Your task to perform on an android device: Clear all items from cart on bestbuy.com. Search for "sony triple a" on bestbuy.com, select the first entry, add it to the cart, then select checkout. Image 0: 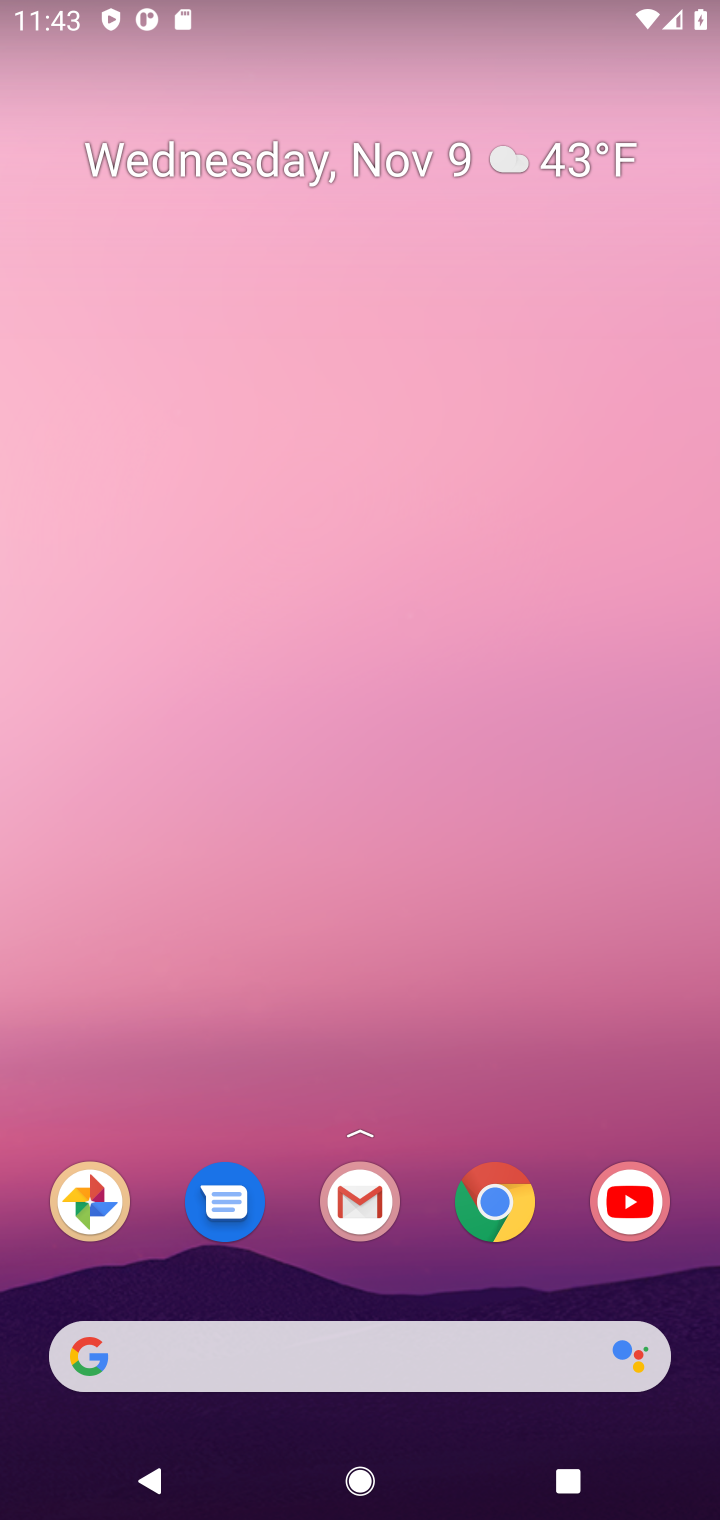
Step 0: click (501, 1201)
Your task to perform on an android device: Clear all items from cart on bestbuy.com. Search for "sony triple a" on bestbuy.com, select the first entry, add it to the cart, then select checkout. Image 1: 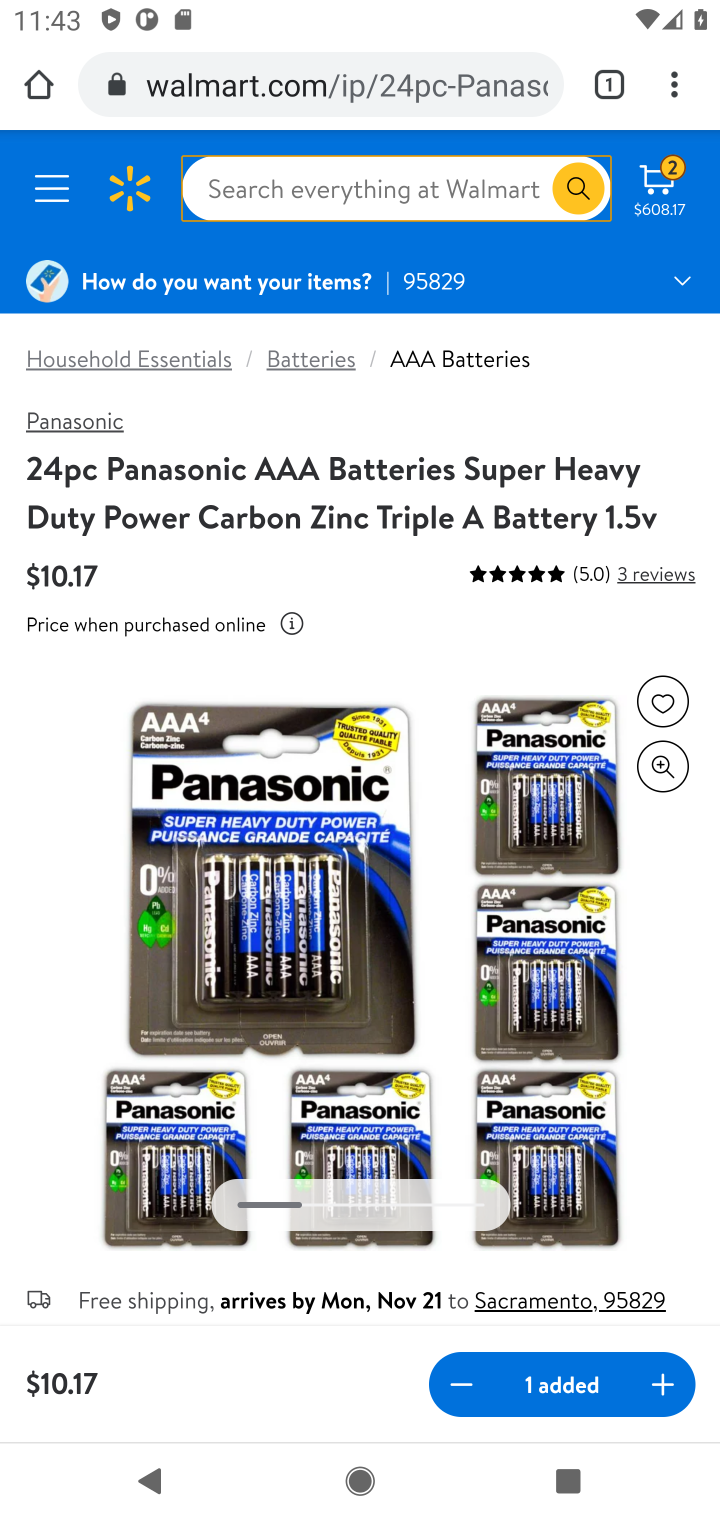
Step 1: click (397, 88)
Your task to perform on an android device: Clear all items from cart on bestbuy.com. Search for "sony triple a" on bestbuy.com, select the first entry, add it to the cart, then select checkout. Image 2: 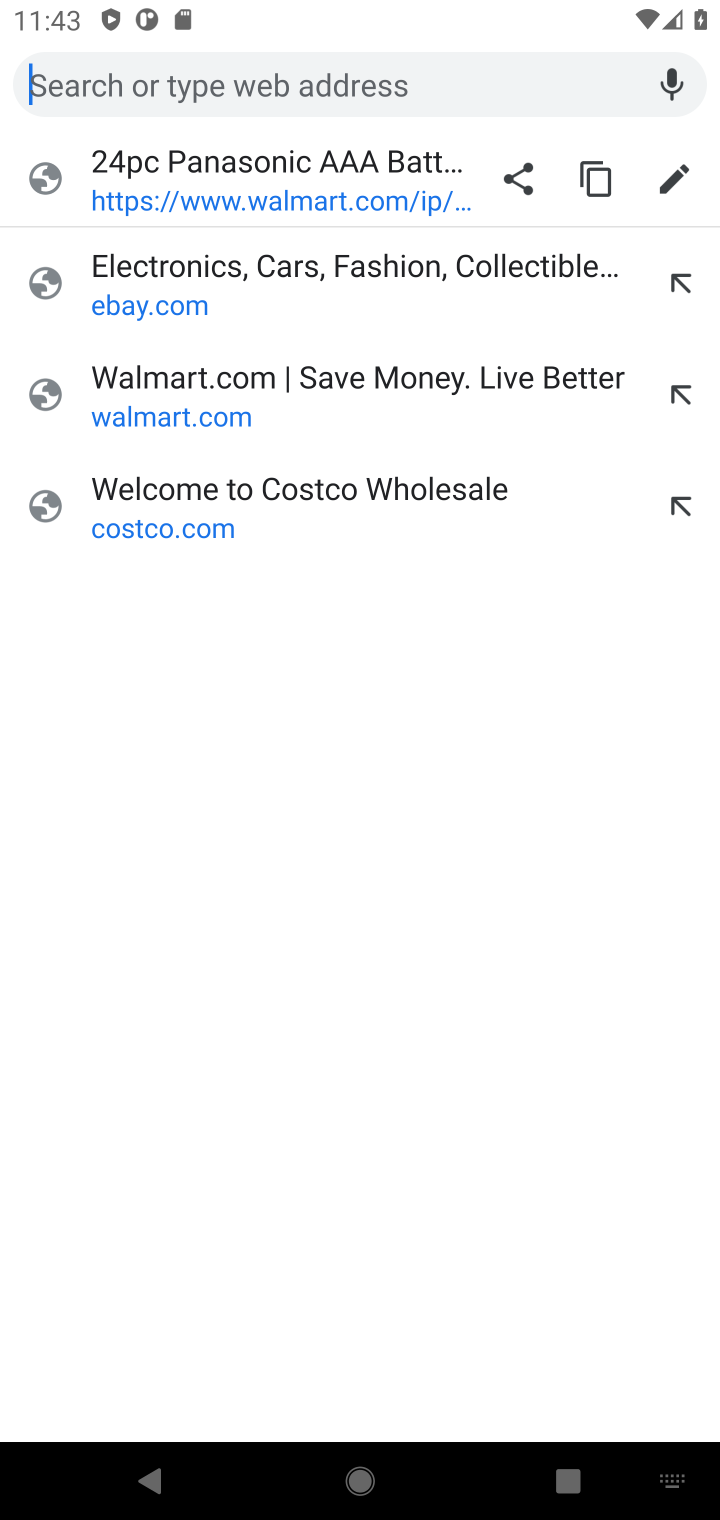
Step 2: press enter
Your task to perform on an android device: Clear all items from cart on bestbuy.com. Search for "sony triple a" on bestbuy.com, select the first entry, add it to the cart, then select checkout. Image 3: 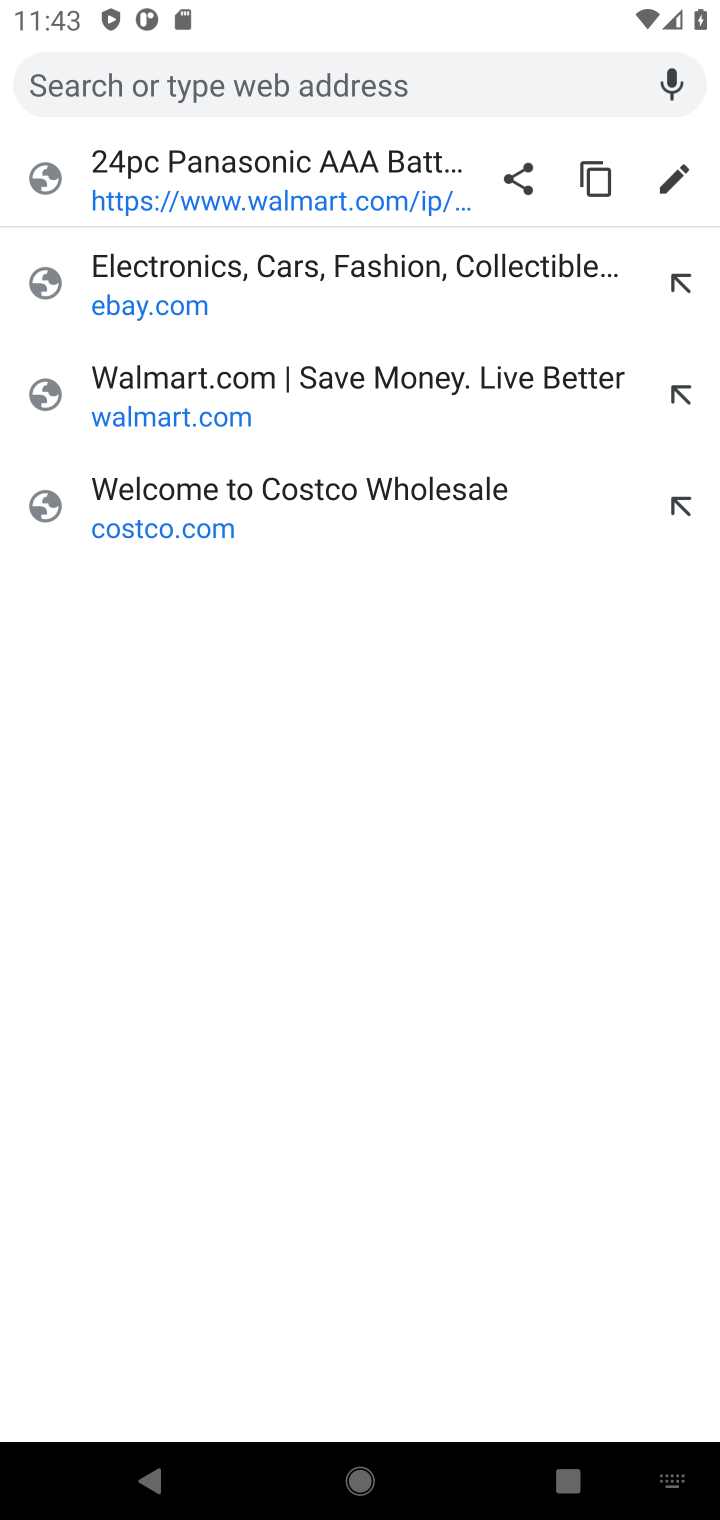
Step 3: type "bestbuy.com"
Your task to perform on an android device: Clear all items from cart on bestbuy.com. Search for "sony triple a" on bestbuy.com, select the first entry, add it to the cart, then select checkout. Image 4: 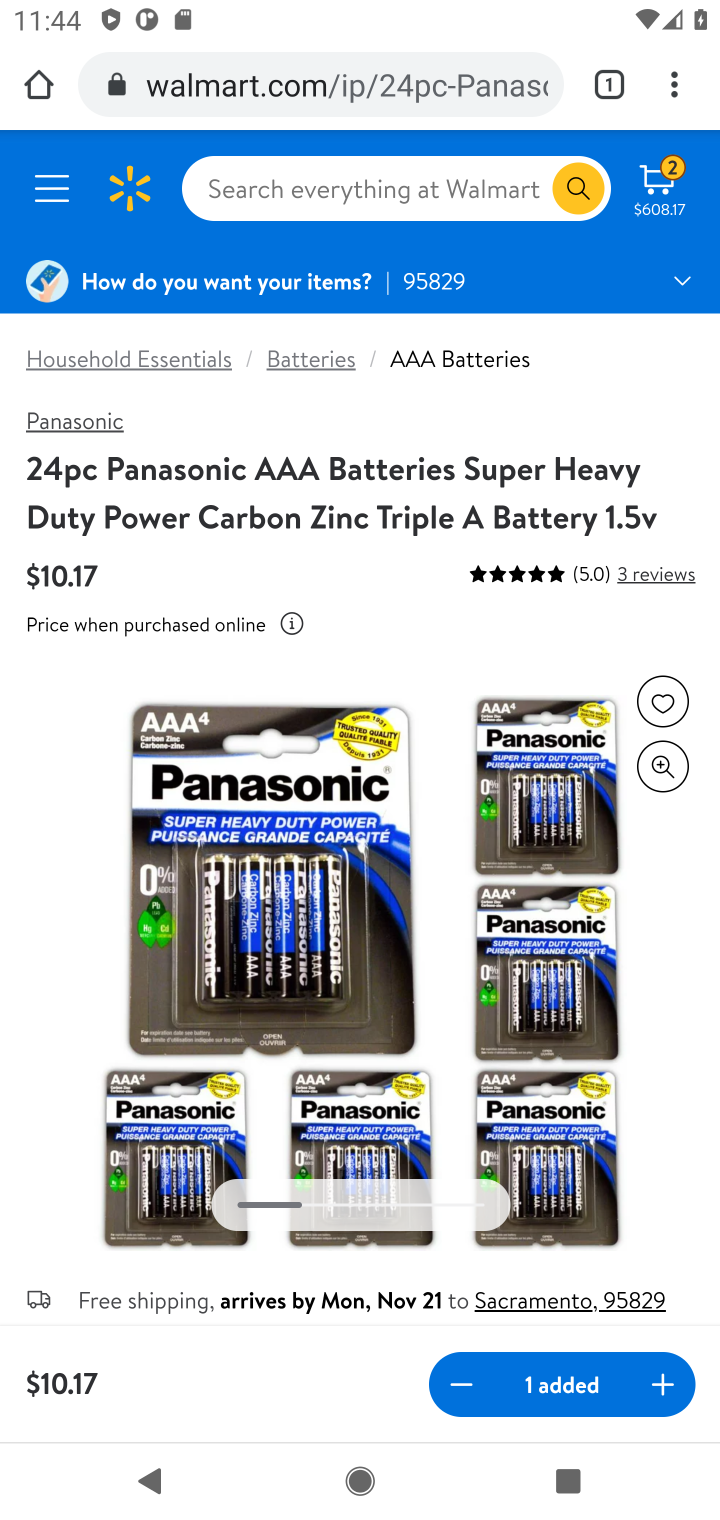
Step 4: click (663, 186)
Your task to perform on an android device: Clear all items from cart on bestbuy.com. Search for "sony triple a" on bestbuy.com, select the first entry, add it to the cart, then select checkout. Image 5: 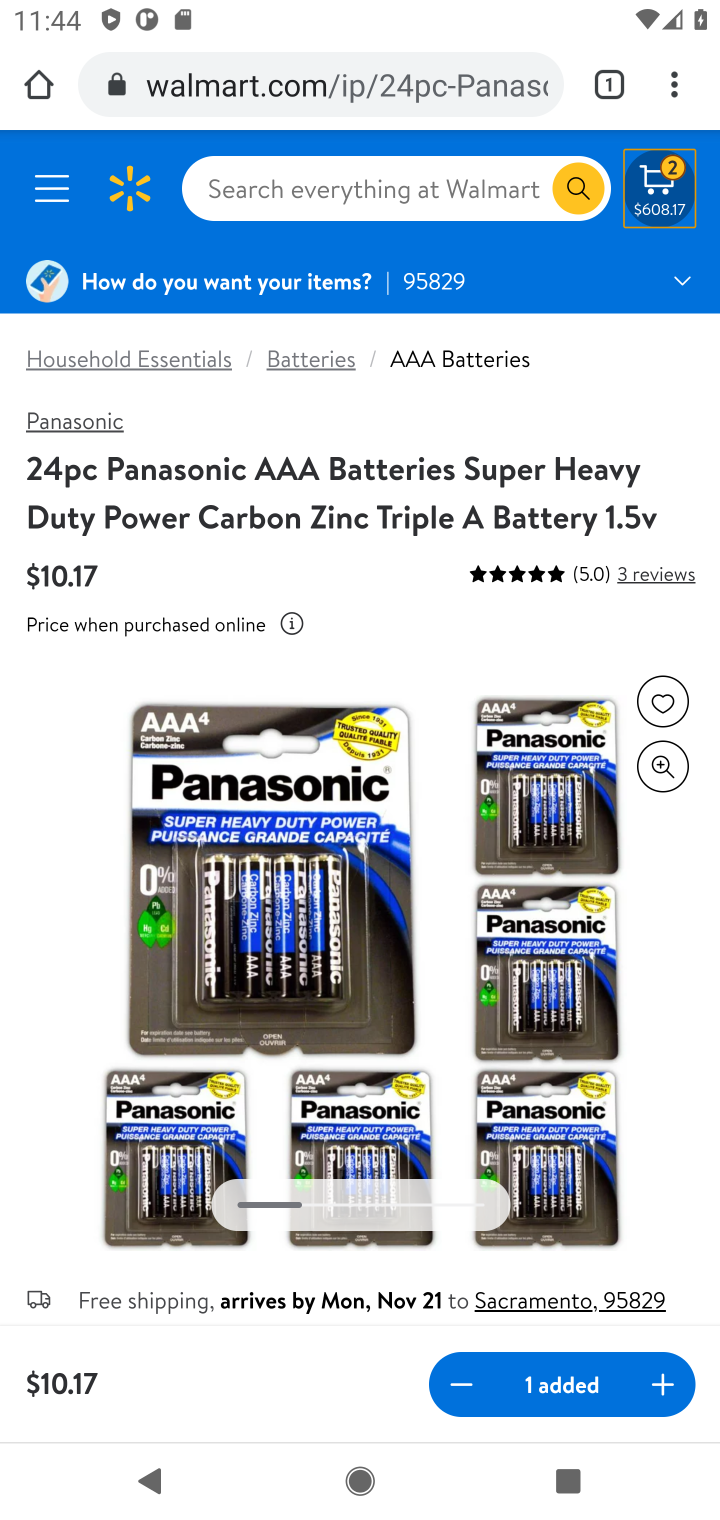
Step 5: click (658, 186)
Your task to perform on an android device: Clear all items from cart on bestbuy.com. Search for "sony triple a" on bestbuy.com, select the first entry, add it to the cart, then select checkout. Image 6: 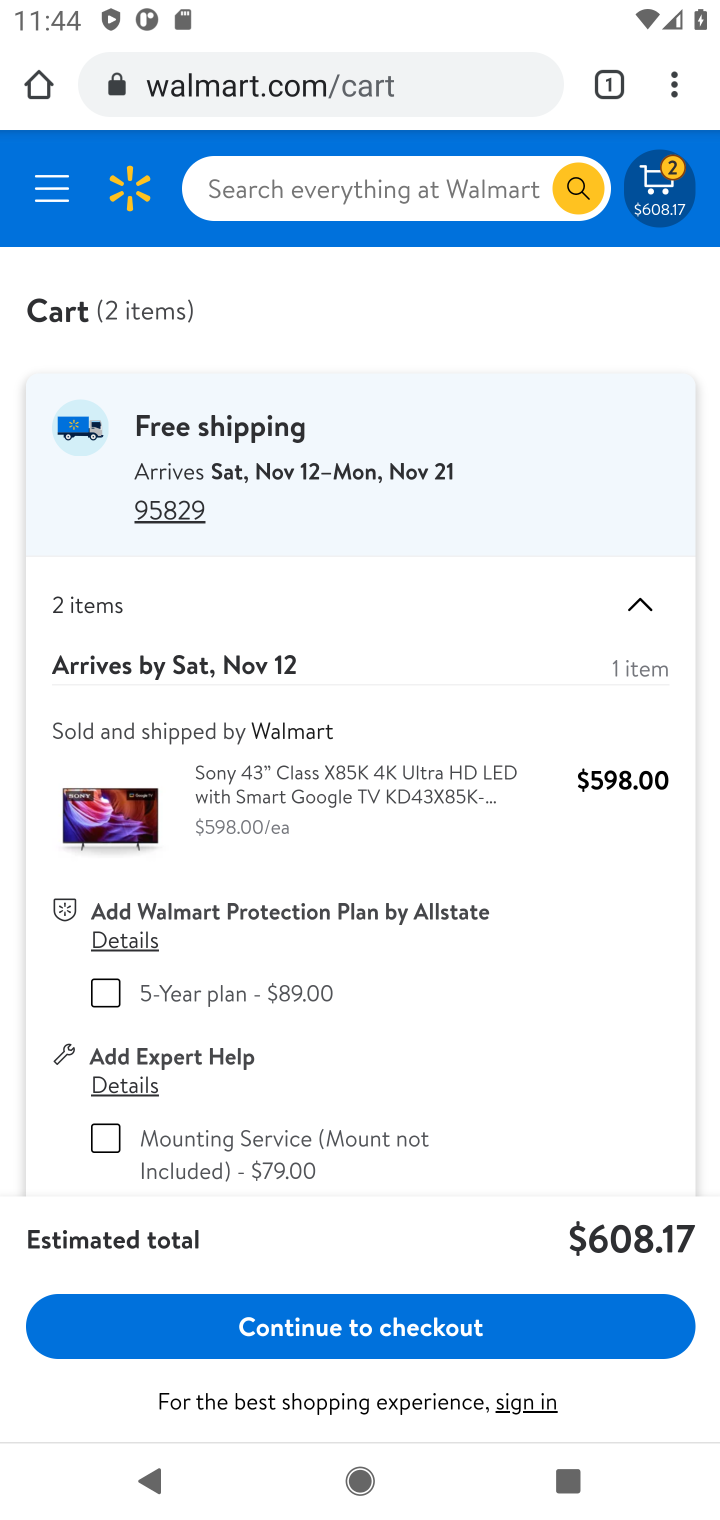
Step 6: drag from (428, 1055) to (536, 437)
Your task to perform on an android device: Clear all items from cart on bestbuy.com. Search for "sony triple a" on bestbuy.com, select the first entry, add it to the cart, then select checkout. Image 7: 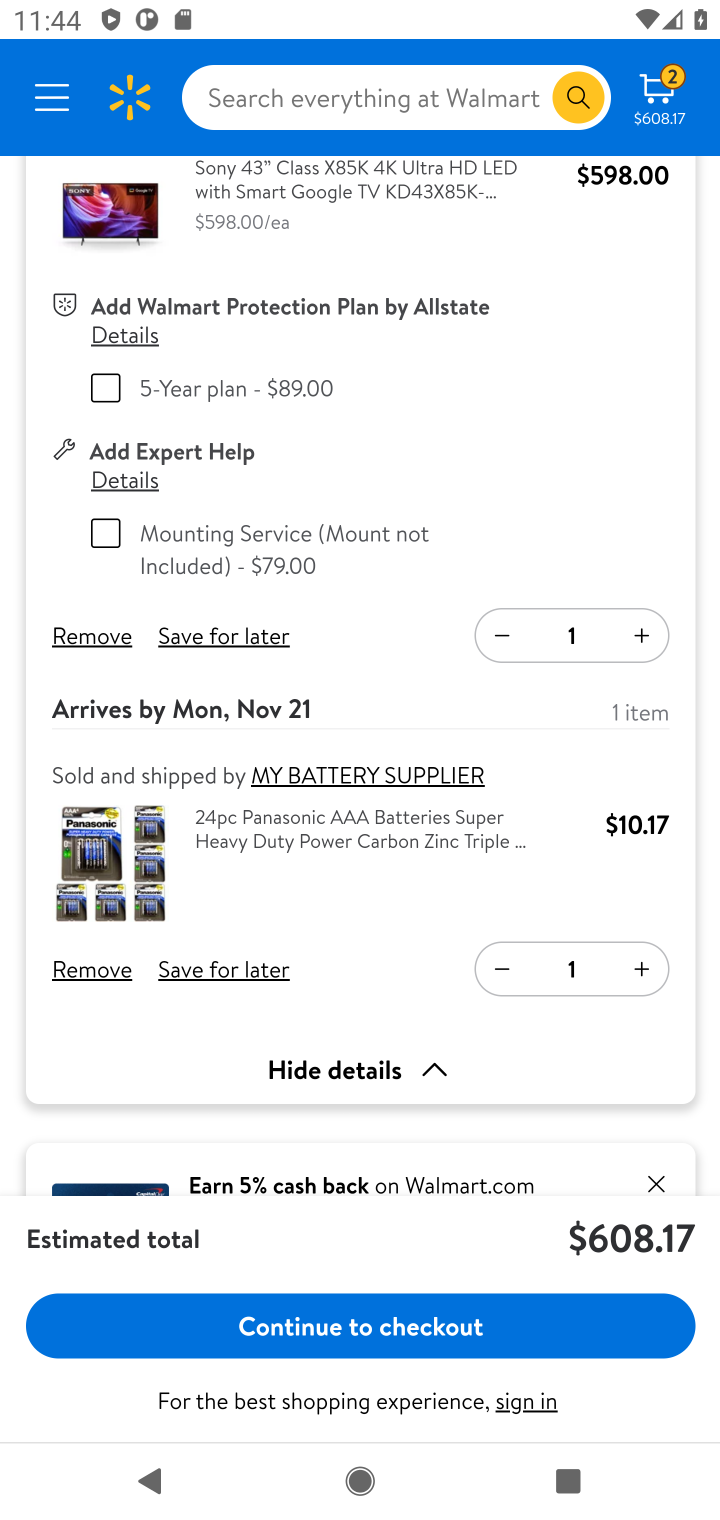
Step 7: click (101, 969)
Your task to perform on an android device: Clear all items from cart on bestbuy.com. Search for "sony triple a" on bestbuy.com, select the first entry, add it to the cart, then select checkout. Image 8: 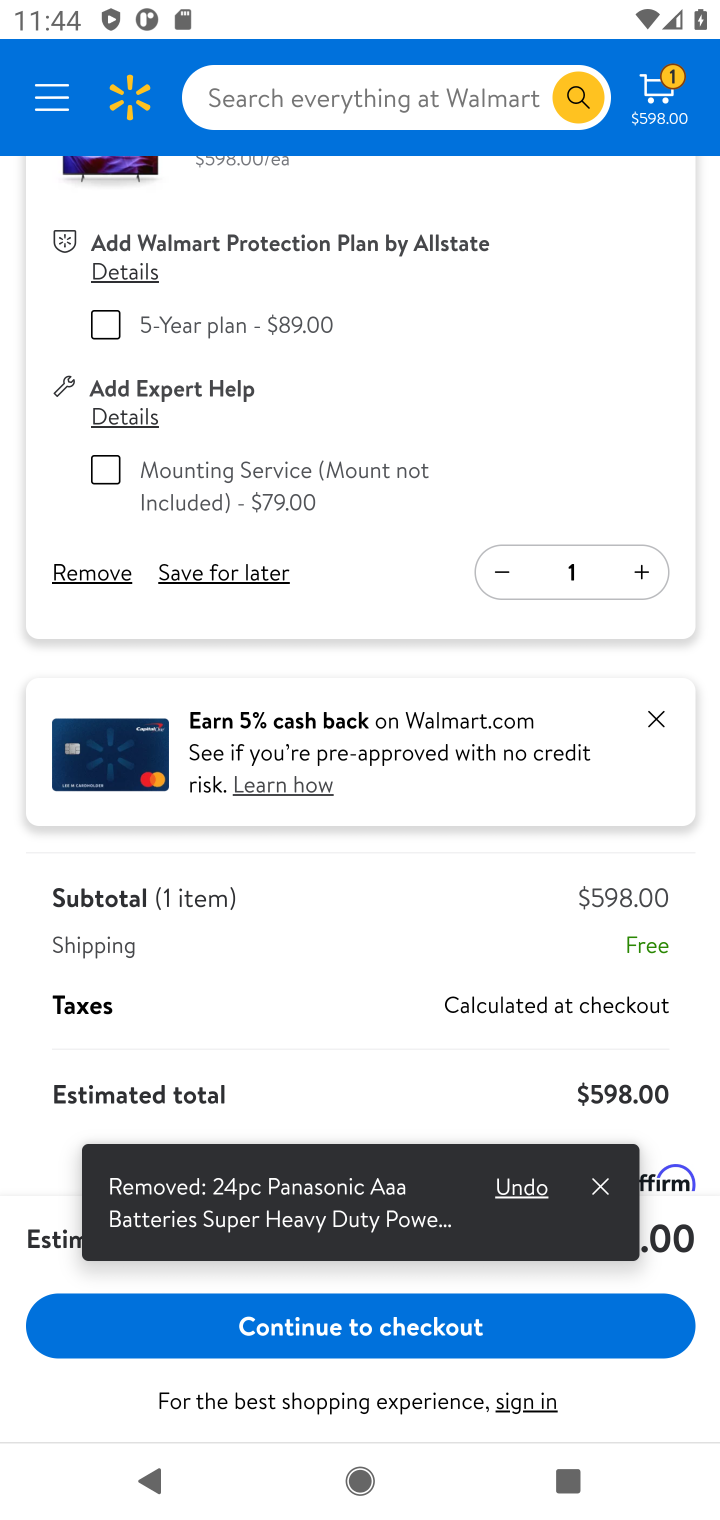
Step 8: click (100, 579)
Your task to perform on an android device: Clear all items from cart on bestbuy.com. Search for "sony triple a" on bestbuy.com, select the first entry, add it to the cart, then select checkout. Image 9: 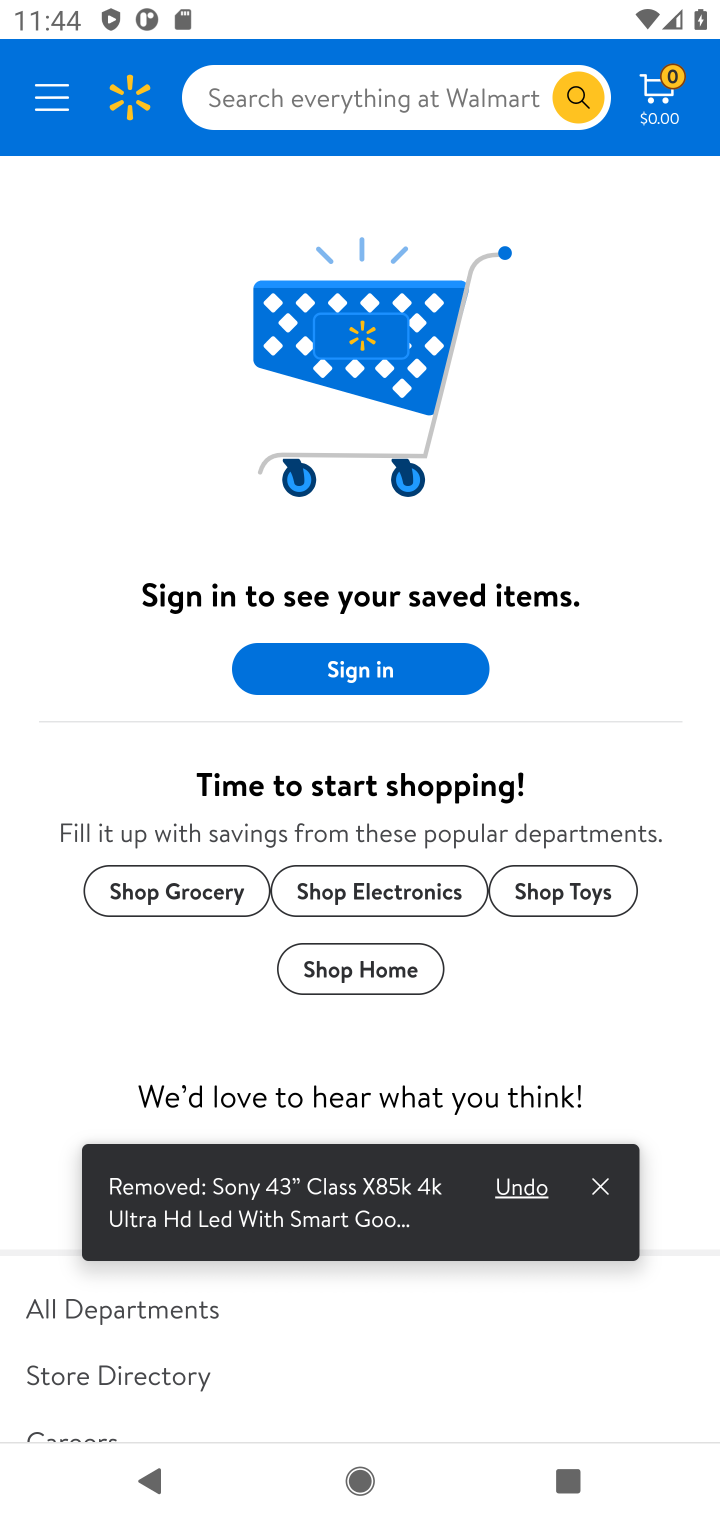
Step 9: click (375, 101)
Your task to perform on an android device: Clear all items from cart on bestbuy.com. Search for "sony triple a" on bestbuy.com, select the first entry, add it to the cart, then select checkout. Image 10: 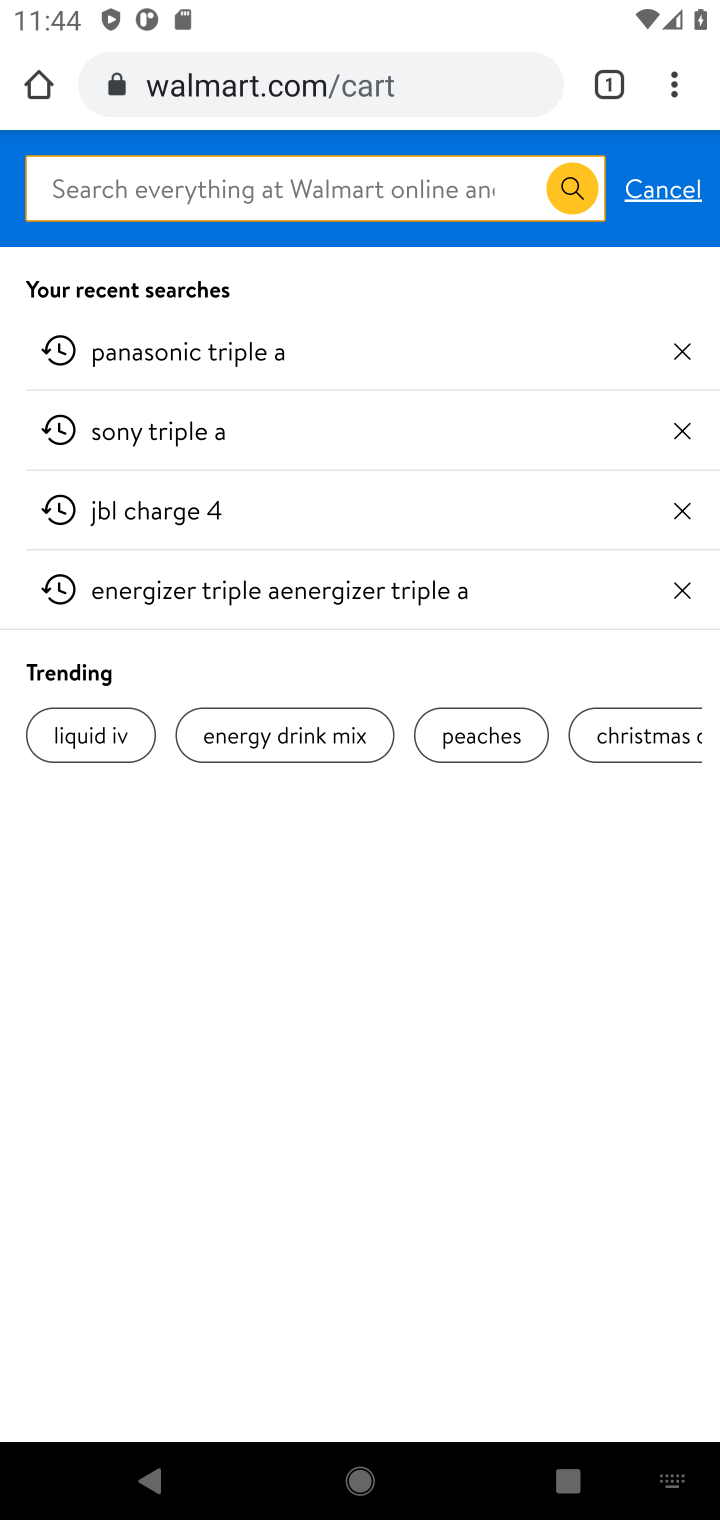
Step 10: click (435, 174)
Your task to perform on an android device: Clear all items from cart on bestbuy.com. Search for "sony triple a" on bestbuy.com, select the first entry, add it to the cart, then select checkout. Image 11: 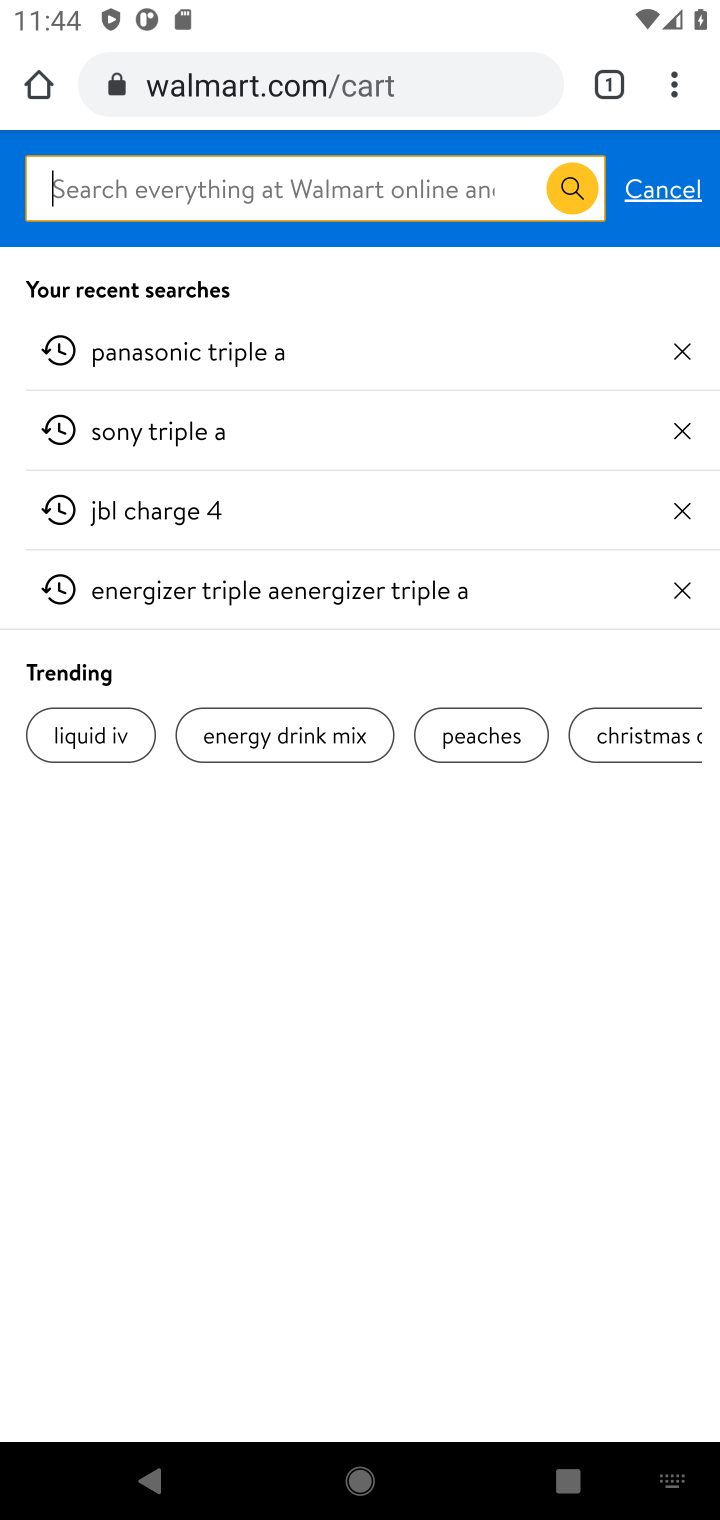
Step 11: type "sony triple a"
Your task to perform on an android device: Clear all items from cart on bestbuy.com. Search for "sony triple a" on bestbuy.com, select the first entry, add it to the cart, then select checkout. Image 12: 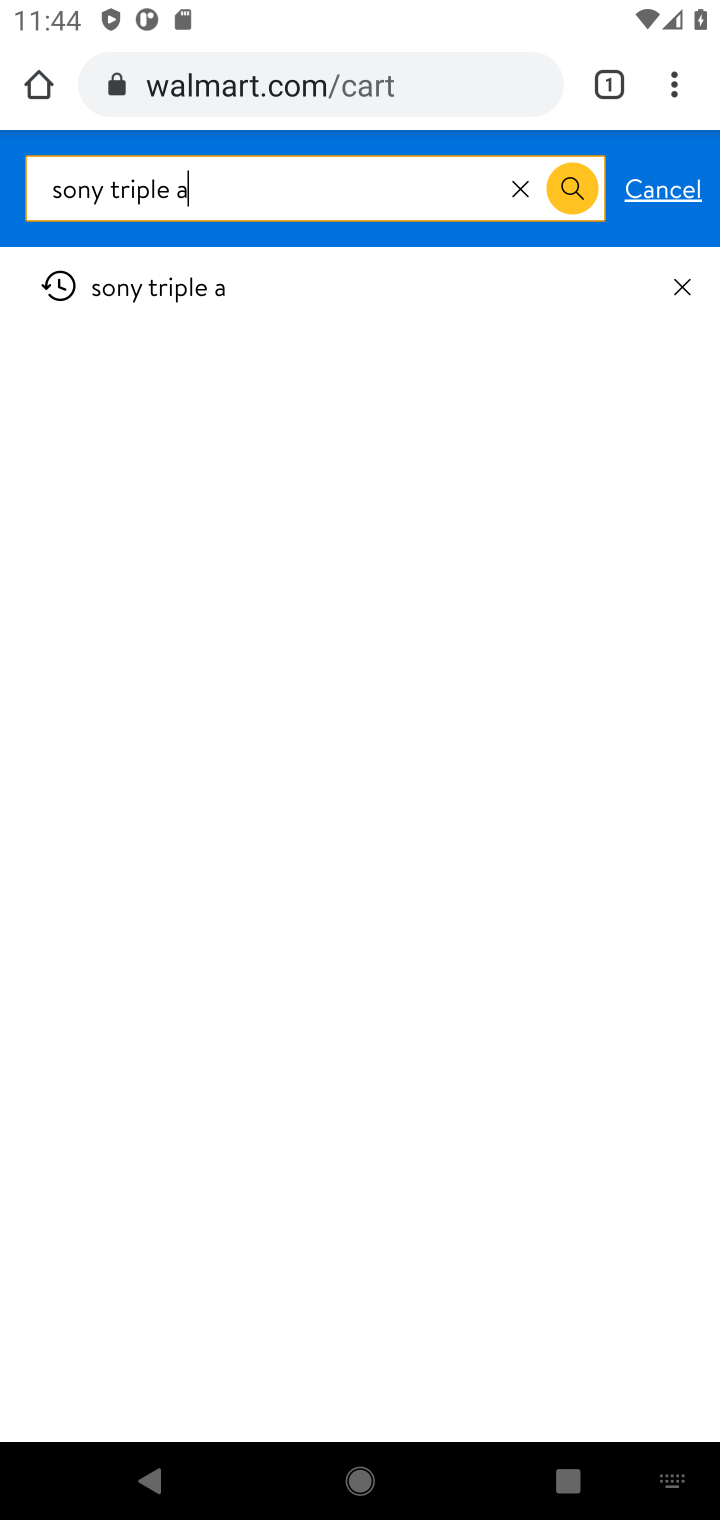
Step 12: press enter
Your task to perform on an android device: Clear all items from cart on bestbuy.com. Search for "sony triple a" on bestbuy.com, select the first entry, add it to the cart, then select checkout. Image 13: 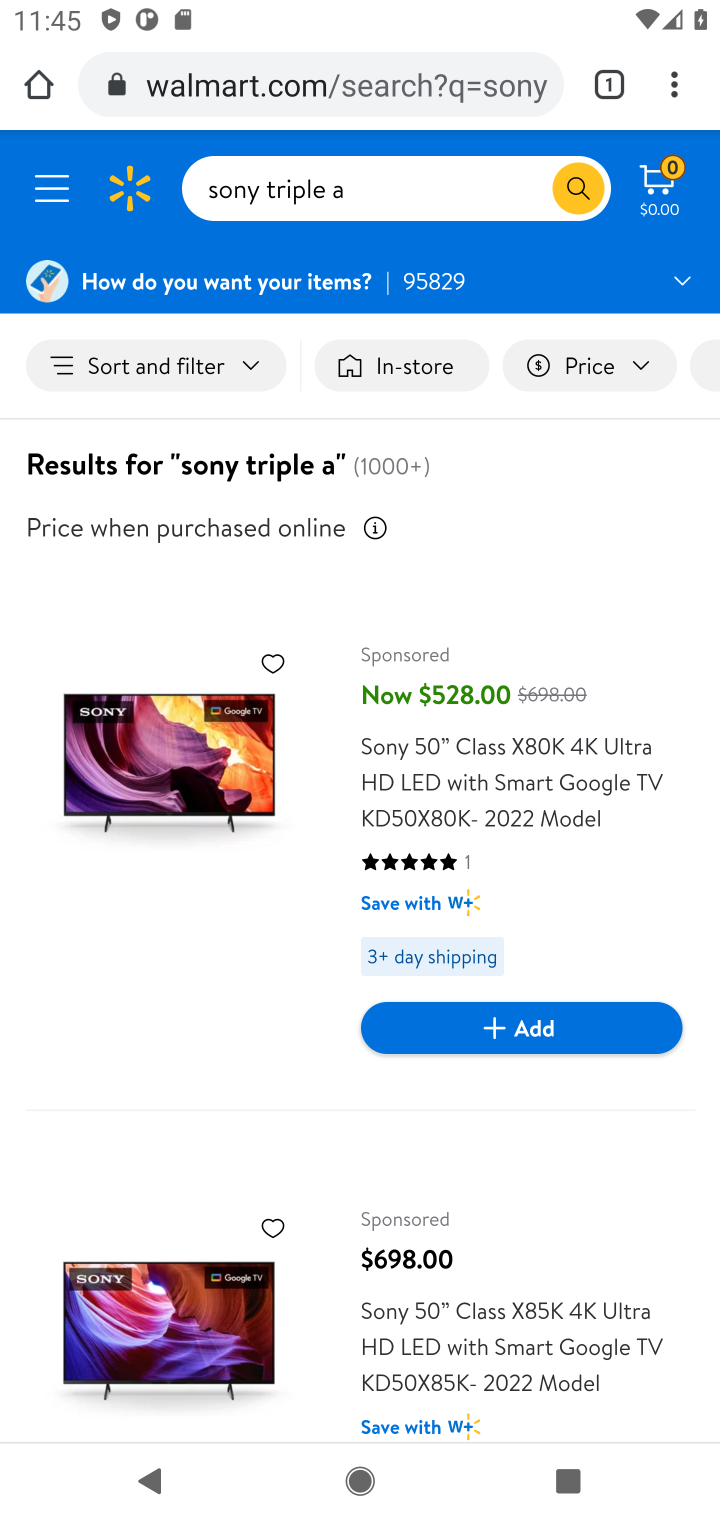
Step 13: drag from (594, 1155) to (582, 495)
Your task to perform on an android device: Clear all items from cart on bestbuy.com. Search for "sony triple a" on bestbuy.com, select the first entry, add it to the cart, then select checkout. Image 14: 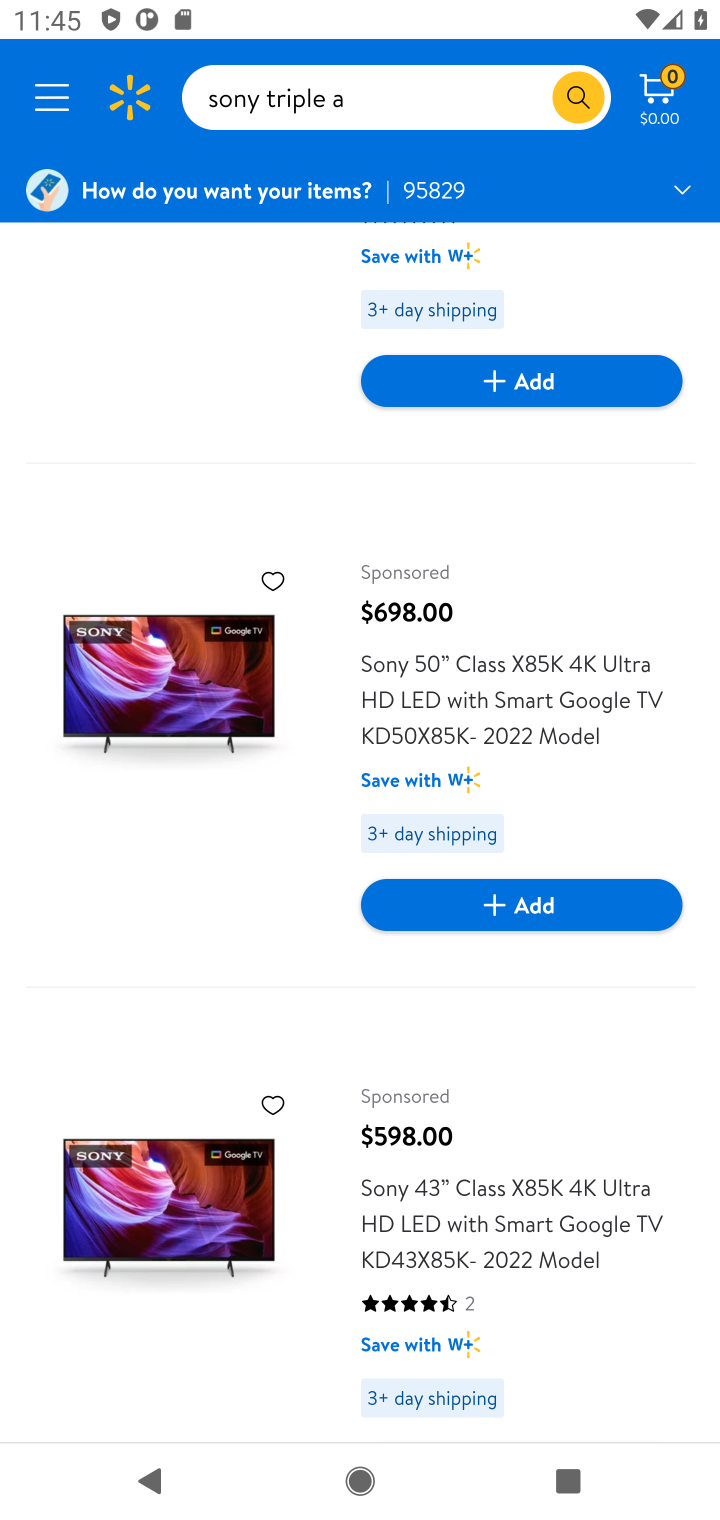
Step 14: drag from (609, 1153) to (677, 529)
Your task to perform on an android device: Clear all items from cart on bestbuy.com. Search for "sony triple a" on bestbuy.com, select the first entry, add it to the cart, then select checkout. Image 15: 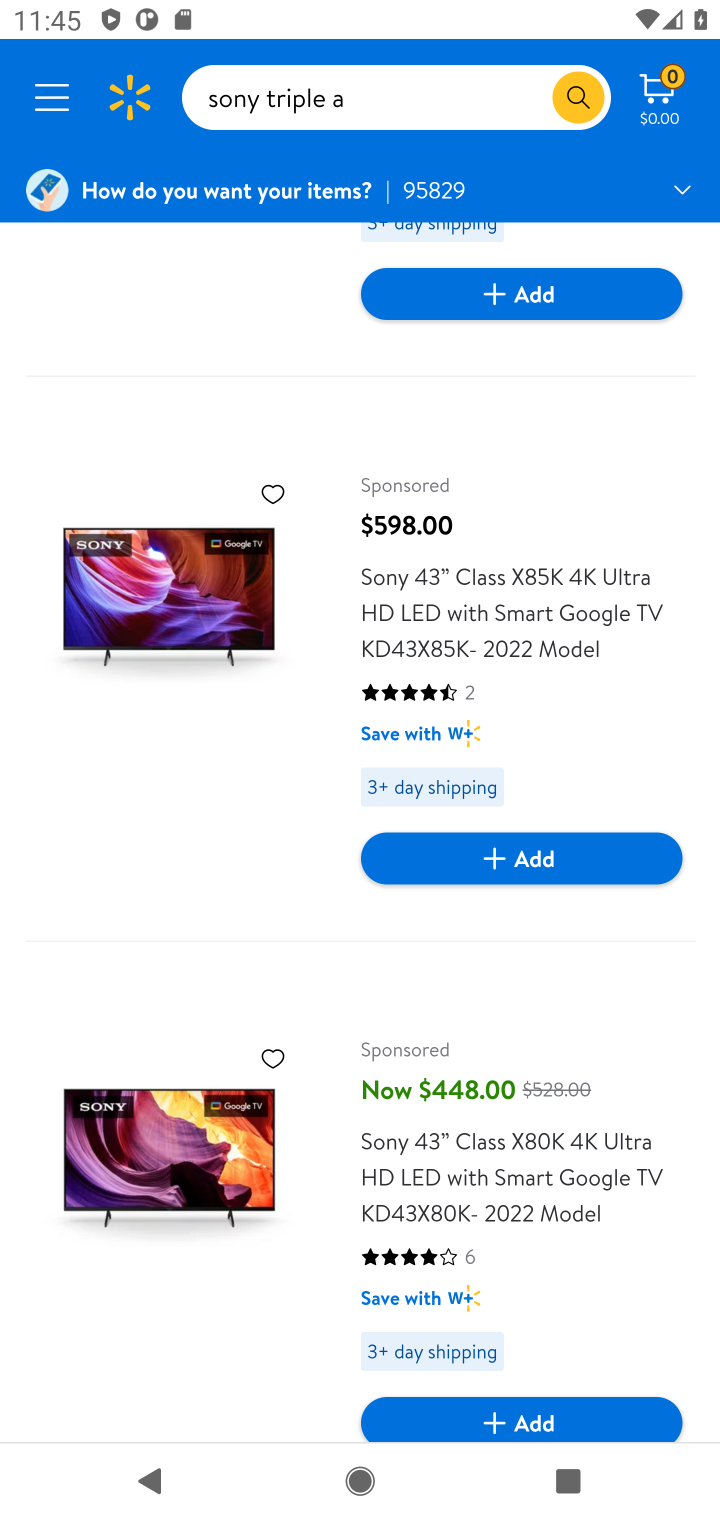
Step 15: drag from (654, 1253) to (650, 540)
Your task to perform on an android device: Clear all items from cart on bestbuy.com. Search for "sony triple a" on bestbuy.com, select the first entry, add it to the cart, then select checkout. Image 16: 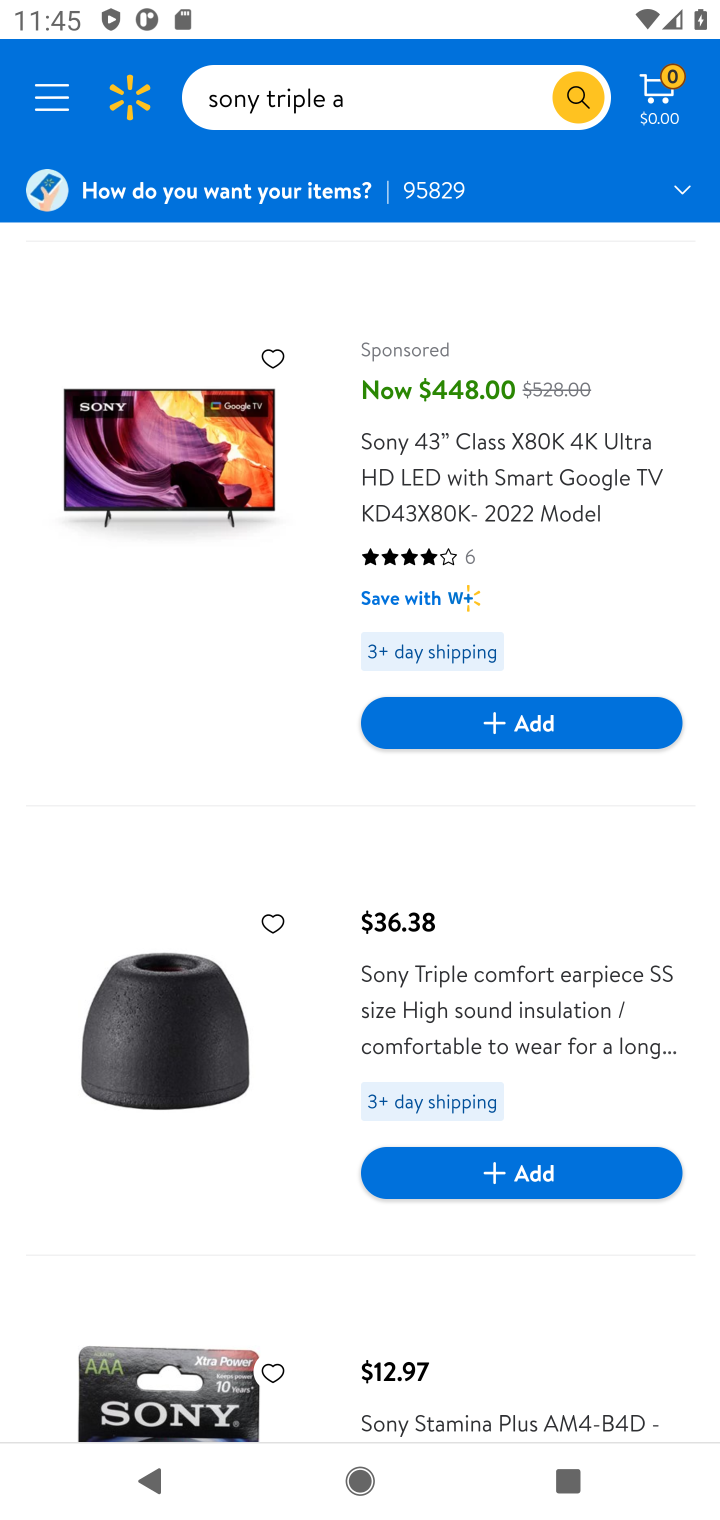
Step 16: click (172, 1055)
Your task to perform on an android device: Clear all items from cart on bestbuy.com. Search for "sony triple a" on bestbuy.com, select the first entry, add it to the cart, then select checkout. Image 17: 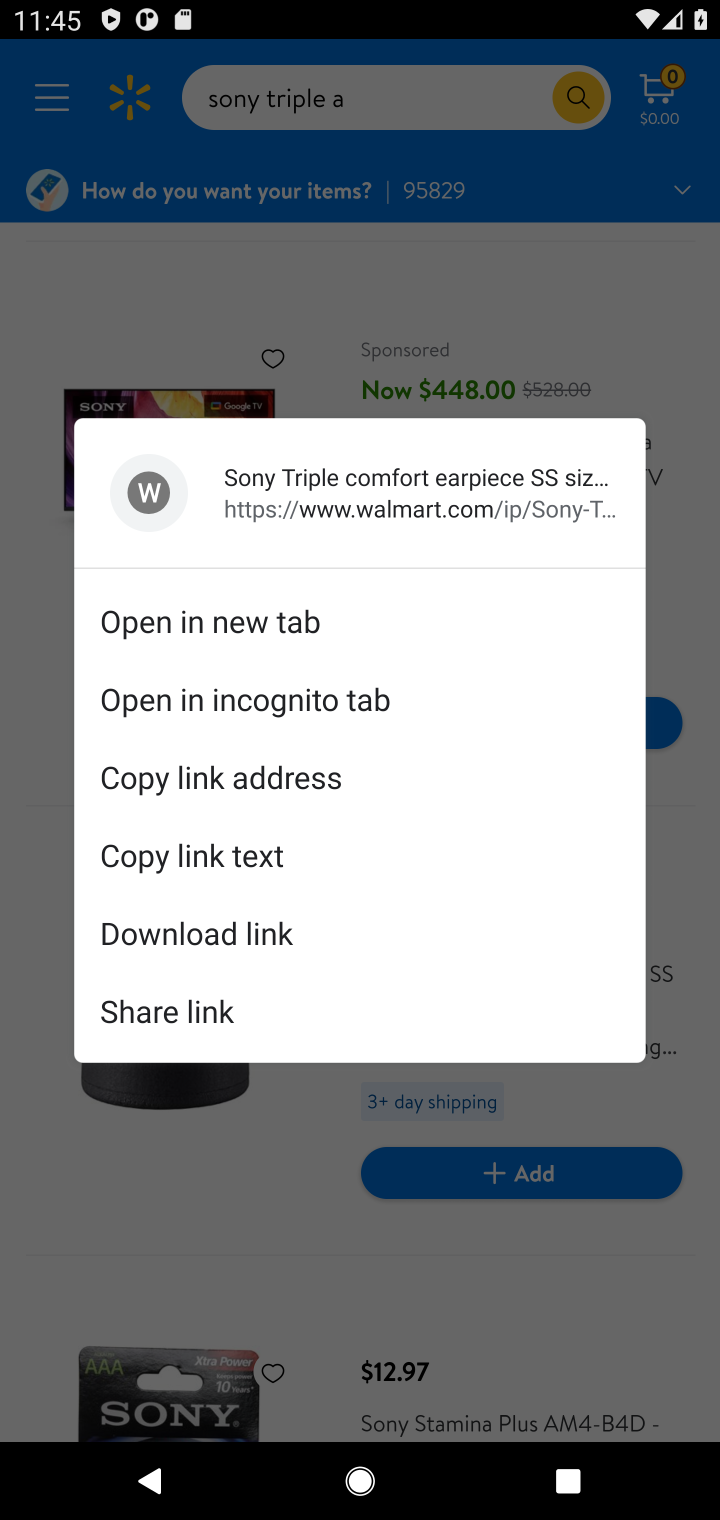
Step 17: click (676, 772)
Your task to perform on an android device: Clear all items from cart on bestbuy.com. Search for "sony triple a" on bestbuy.com, select the first entry, add it to the cart, then select checkout. Image 18: 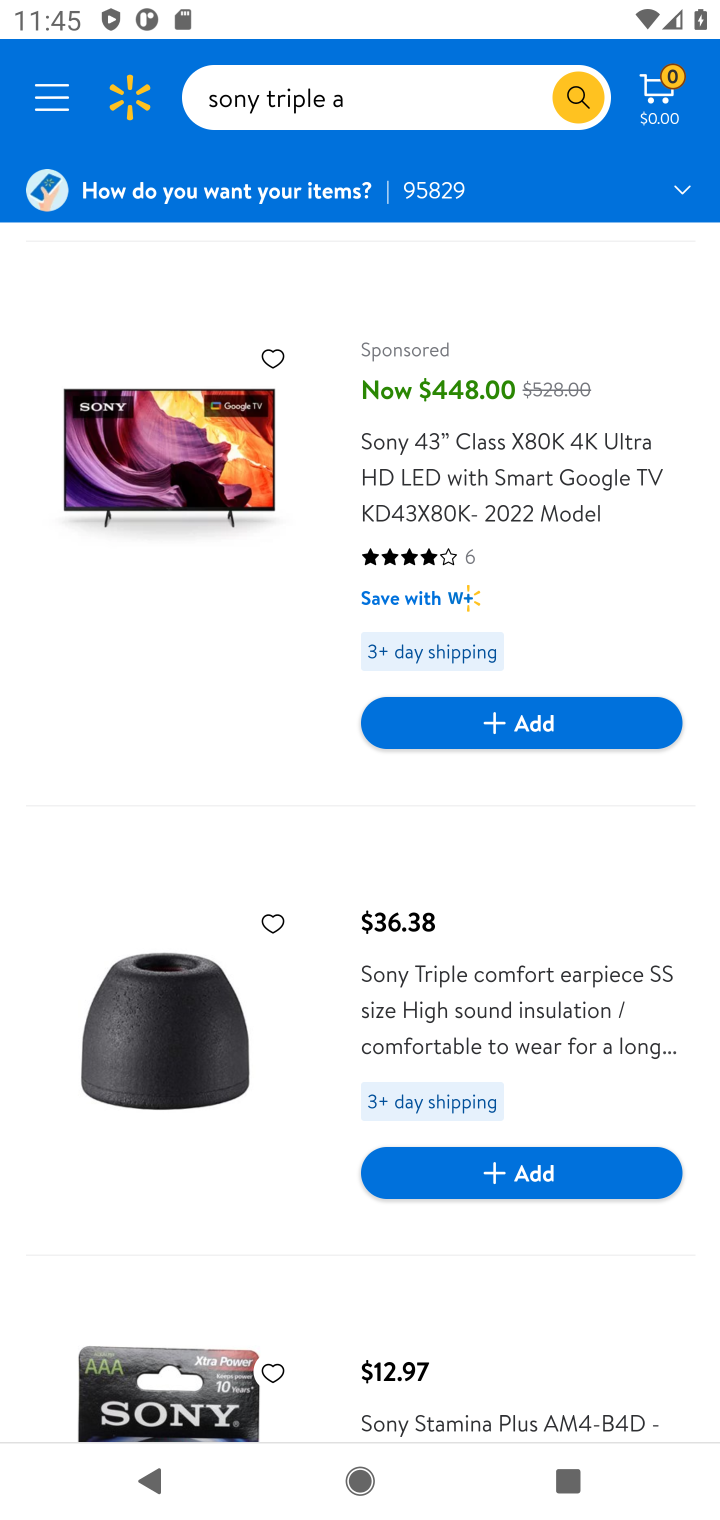
Step 18: click (181, 1015)
Your task to perform on an android device: Clear all items from cart on bestbuy.com. Search for "sony triple a" on bestbuy.com, select the first entry, add it to the cart, then select checkout. Image 19: 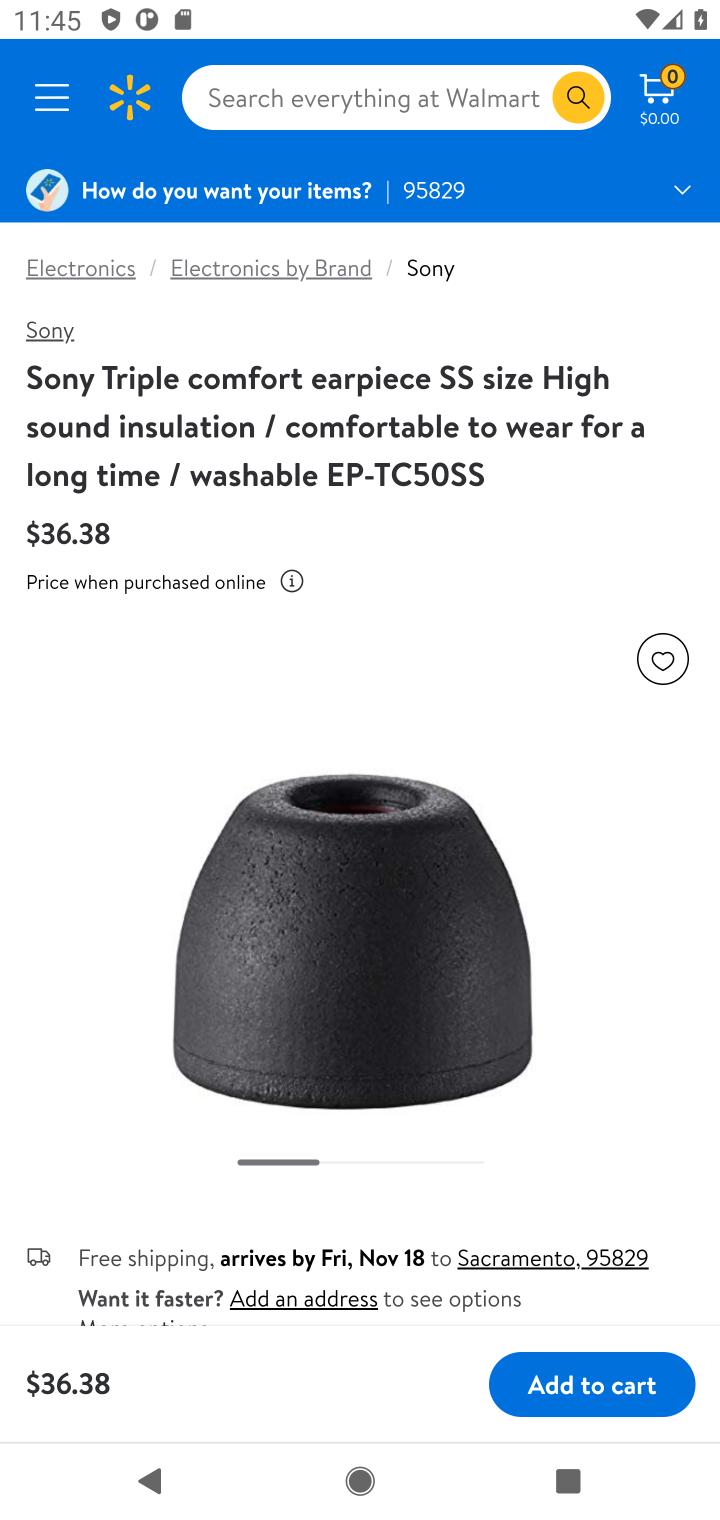
Step 19: click (562, 1378)
Your task to perform on an android device: Clear all items from cart on bestbuy.com. Search for "sony triple a" on bestbuy.com, select the first entry, add it to the cart, then select checkout. Image 20: 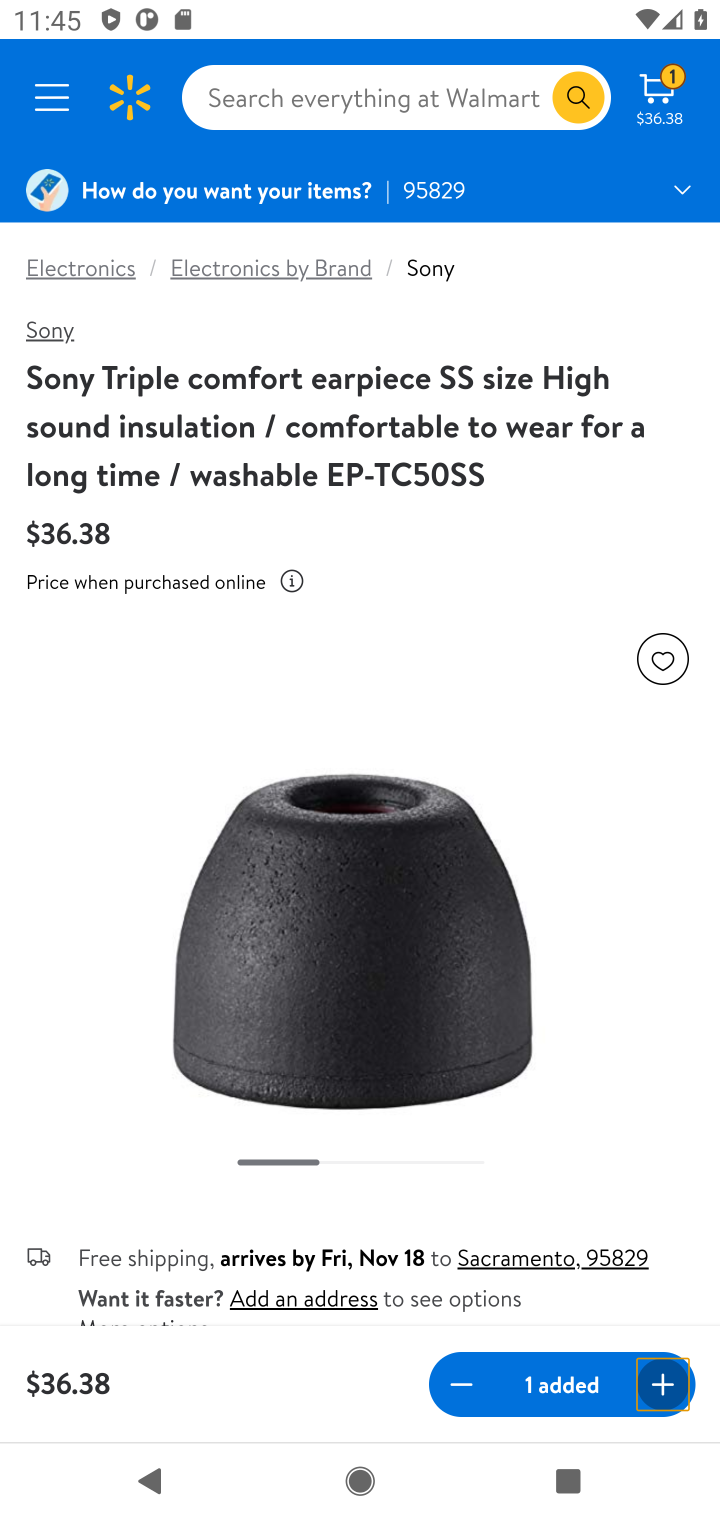
Step 20: click (672, 102)
Your task to perform on an android device: Clear all items from cart on bestbuy.com. Search for "sony triple a" on bestbuy.com, select the first entry, add it to the cart, then select checkout. Image 21: 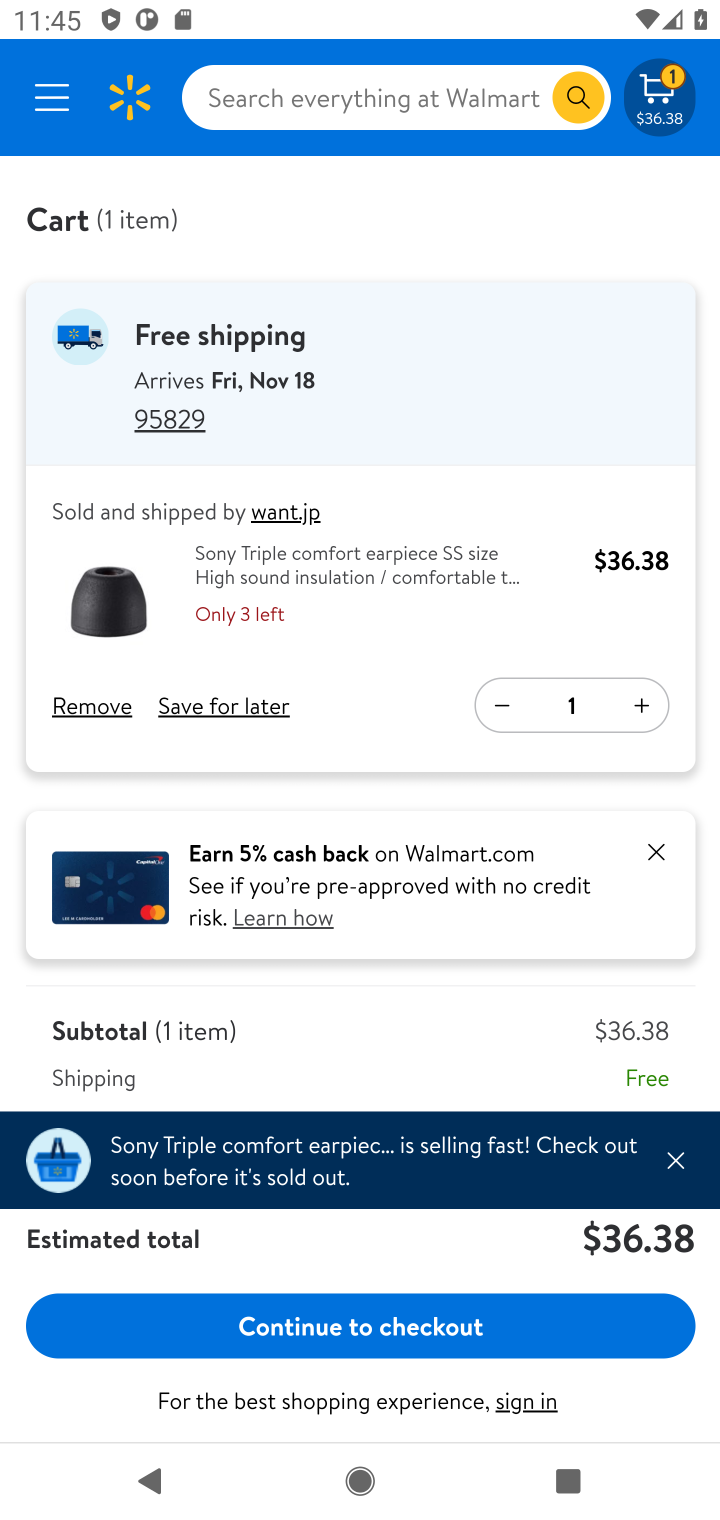
Step 21: click (418, 1319)
Your task to perform on an android device: Clear all items from cart on bestbuy.com. Search for "sony triple a" on bestbuy.com, select the first entry, add it to the cart, then select checkout. Image 22: 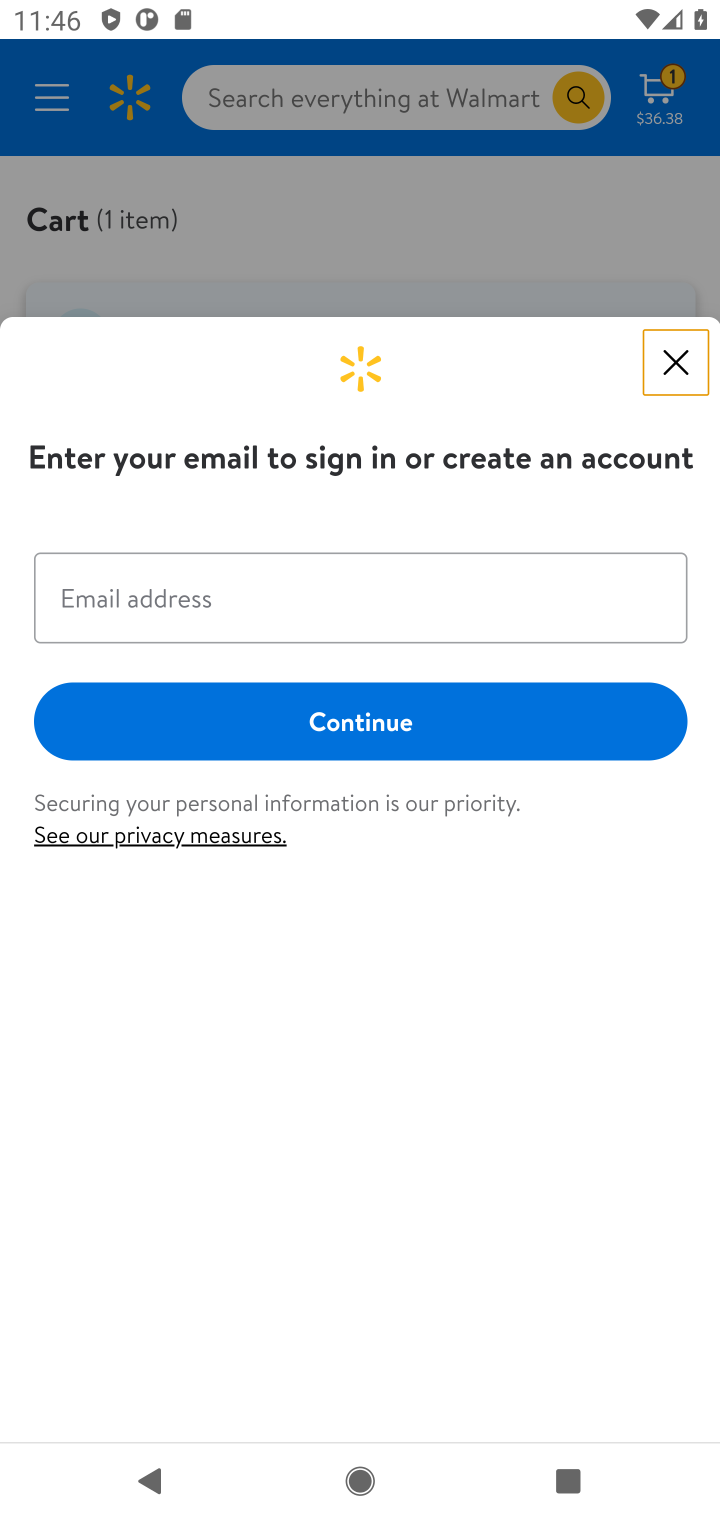
Step 22: task complete